Your task to perform on an android device: When is my next meeting? Image 0: 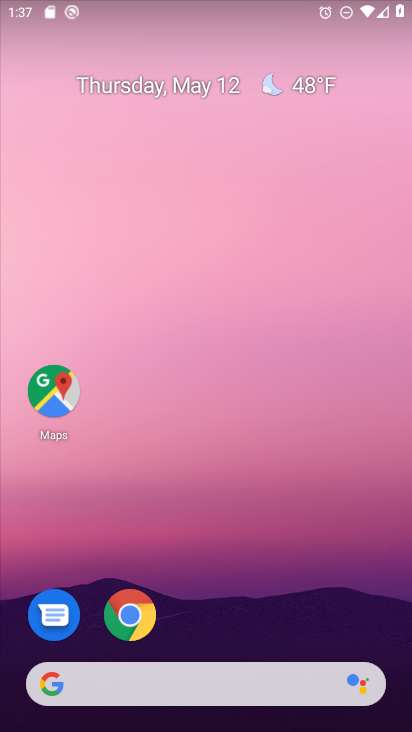
Step 0: drag from (366, 693) to (273, 47)
Your task to perform on an android device: When is my next meeting? Image 1: 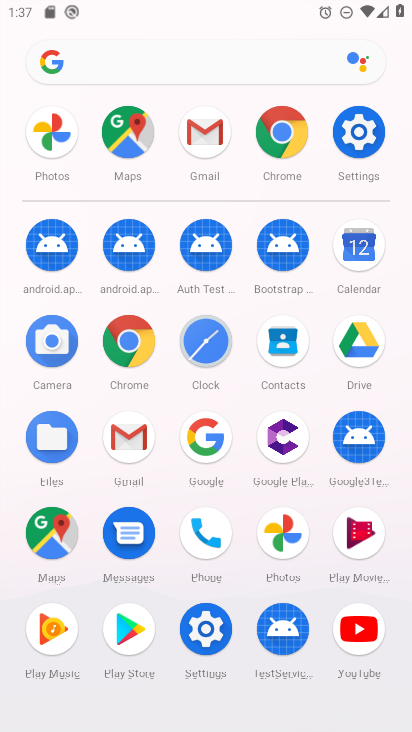
Step 1: click (365, 262)
Your task to perform on an android device: When is my next meeting? Image 2: 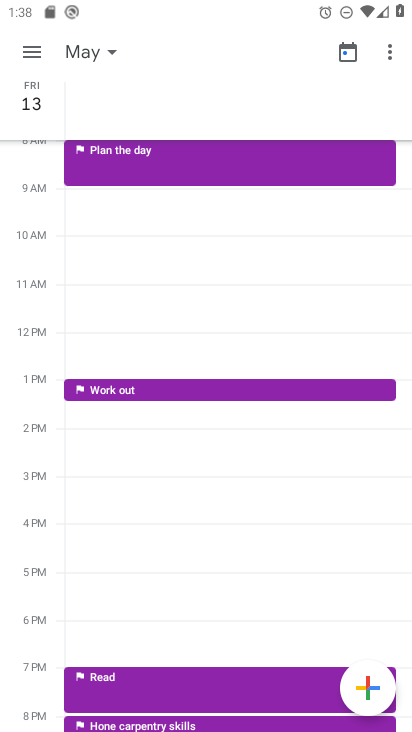
Step 2: click (109, 47)
Your task to perform on an android device: When is my next meeting? Image 3: 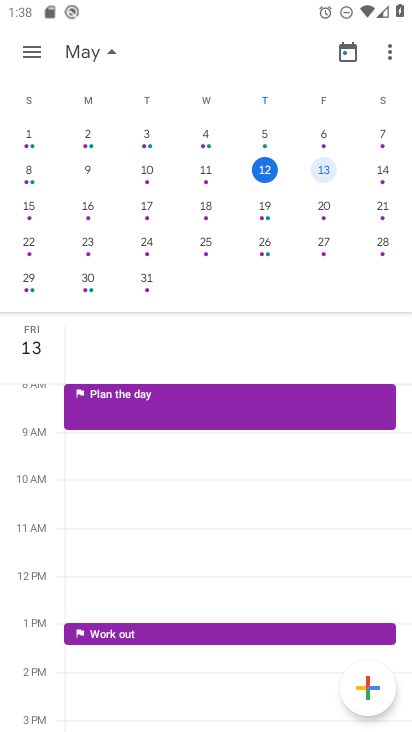
Step 3: click (263, 173)
Your task to perform on an android device: When is my next meeting? Image 4: 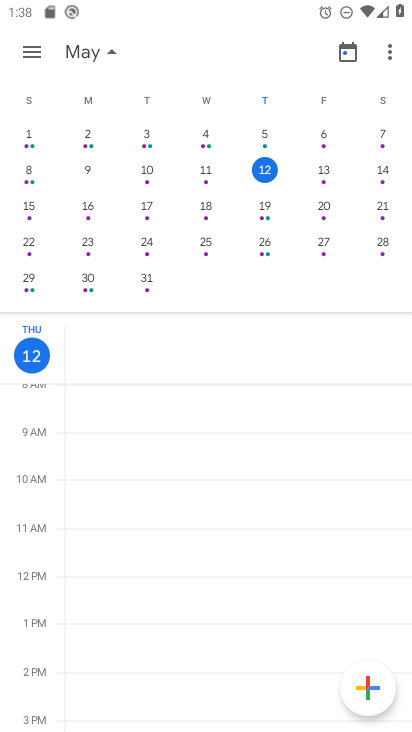
Step 4: task complete